Your task to perform on an android device: visit the assistant section in the google photos Image 0: 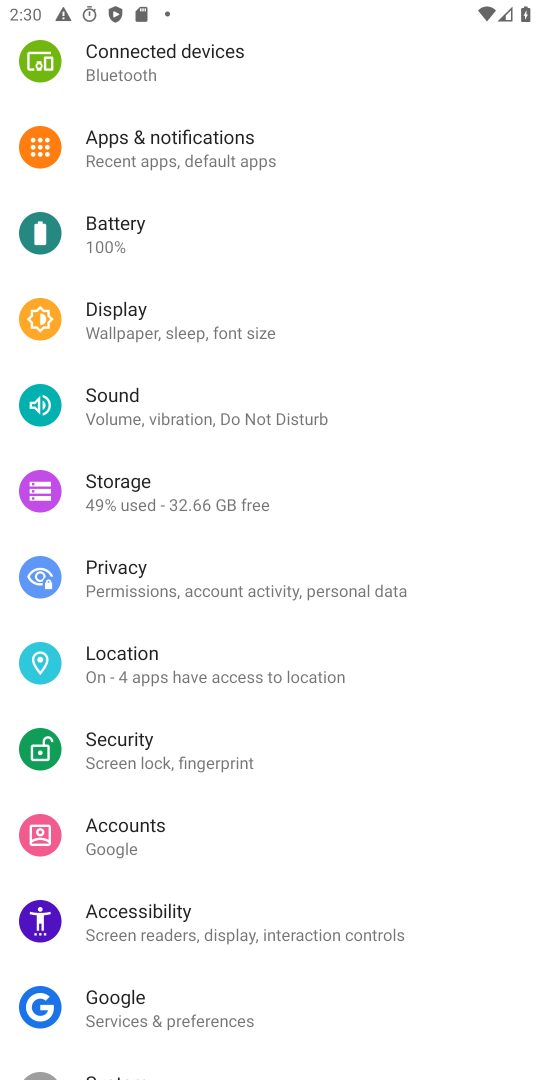
Step 0: press home button
Your task to perform on an android device: visit the assistant section in the google photos Image 1: 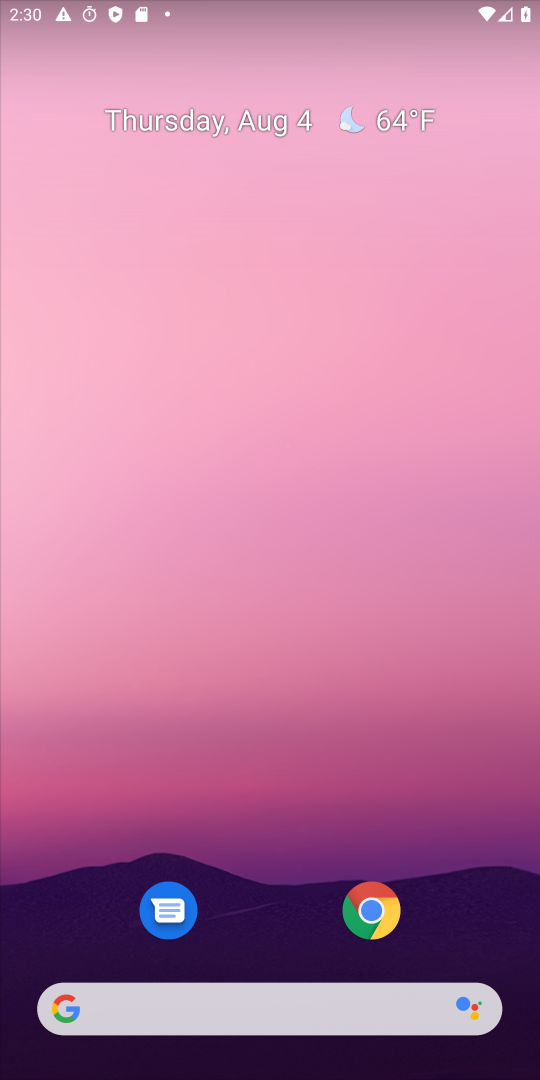
Step 1: drag from (260, 950) to (234, 208)
Your task to perform on an android device: visit the assistant section in the google photos Image 2: 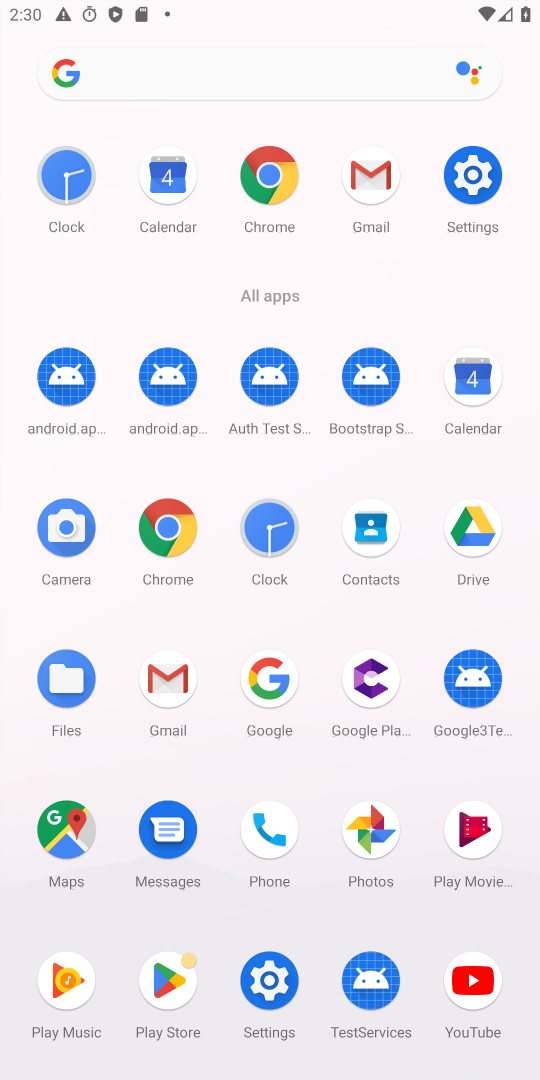
Step 2: click (375, 832)
Your task to perform on an android device: visit the assistant section in the google photos Image 3: 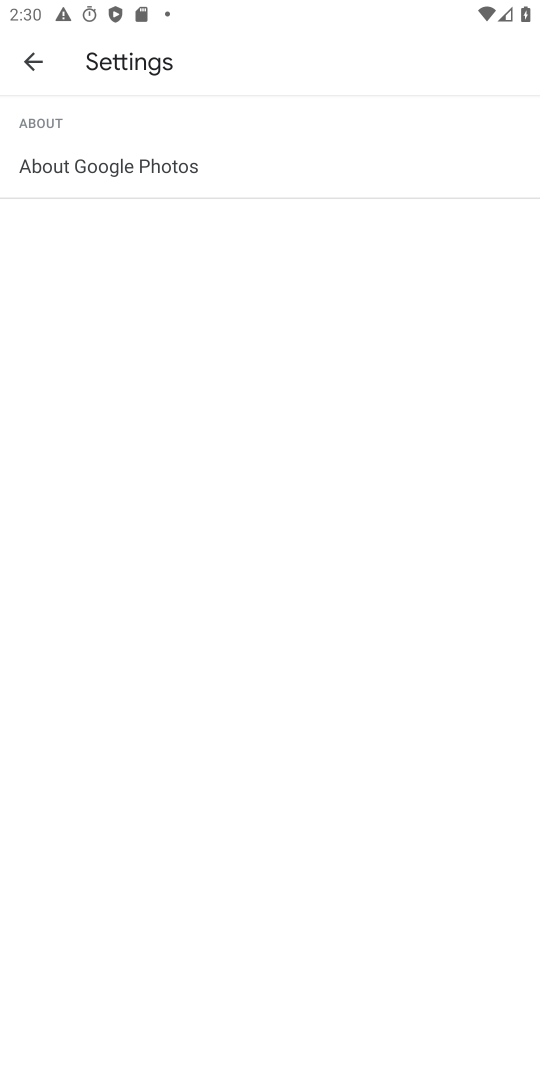
Step 3: click (28, 55)
Your task to perform on an android device: visit the assistant section in the google photos Image 4: 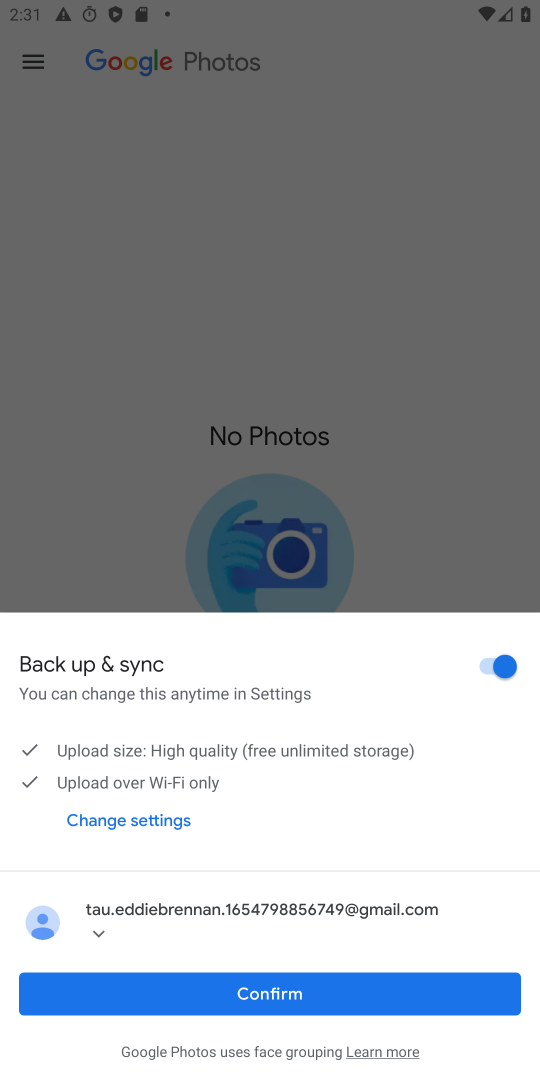
Step 4: click (241, 990)
Your task to perform on an android device: visit the assistant section in the google photos Image 5: 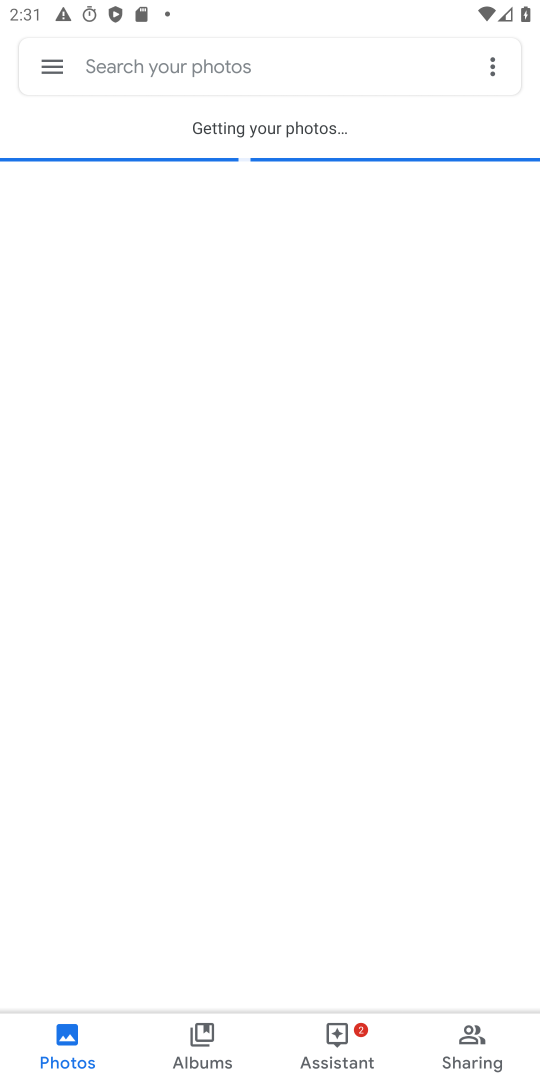
Step 5: click (326, 1061)
Your task to perform on an android device: visit the assistant section in the google photos Image 6: 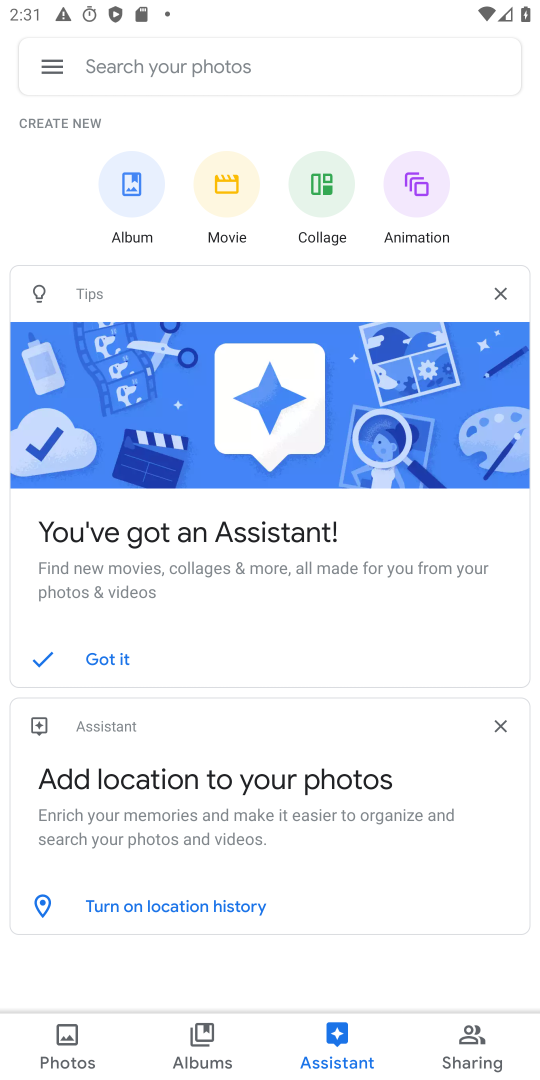
Step 6: task complete